Your task to perform on an android device: turn off notifications settings in the gmail app Image 0: 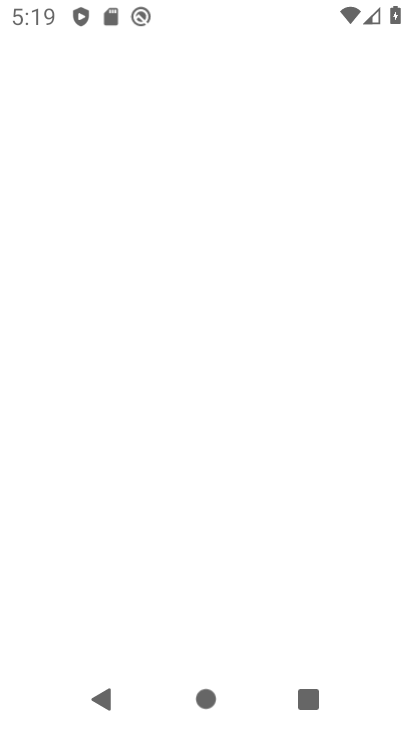
Step 0: press home button
Your task to perform on an android device: turn off notifications settings in the gmail app Image 1: 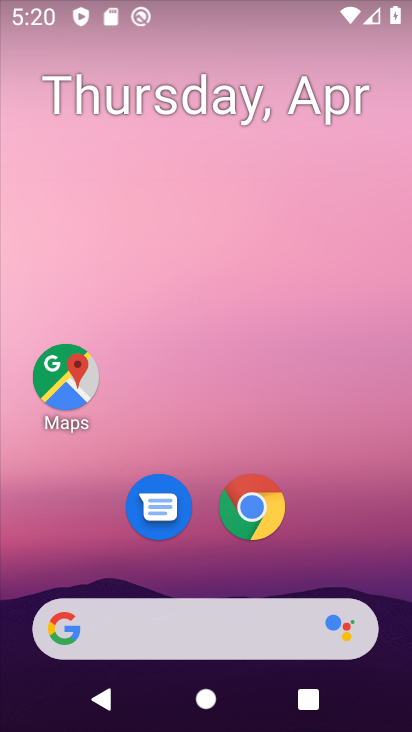
Step 1: drag from (354, 446) to (358, 154)
Your task to perform on an android device: turn off notifications settings in the gmail app Image 2: 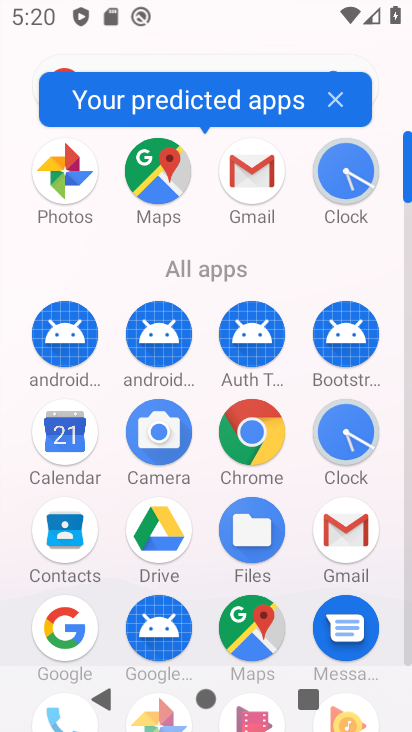
Step 2: click (357, 522)
Your task to perform on an android device: turn off notifications settings in the gmail app Image 3: 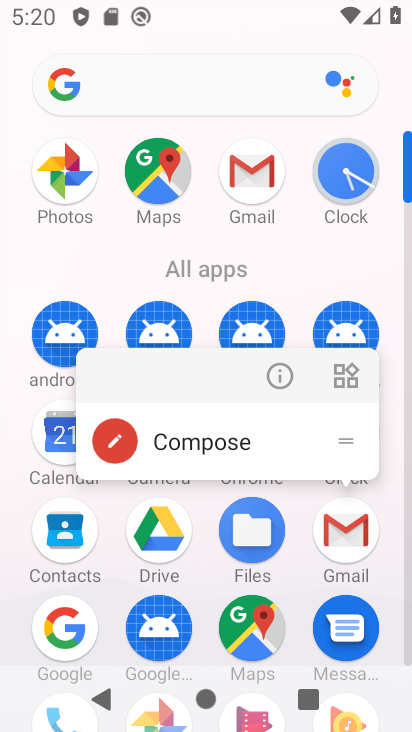
Step 3: click (280, 375)
Your task to perform on an android device: turn off notifications settings in the gmail app Image 4: 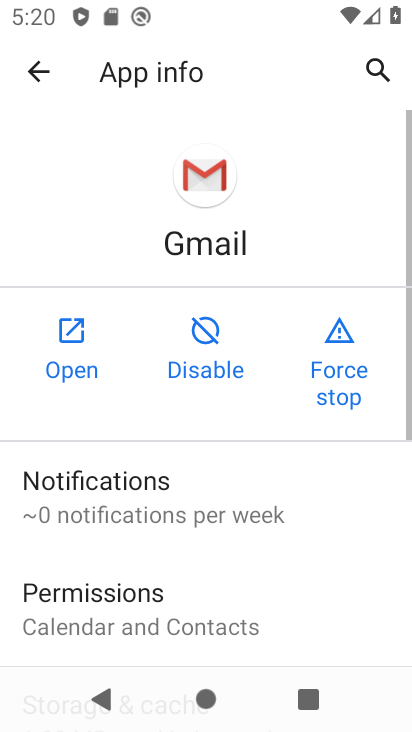
Step 4: click (165, 495)
Your task to perform on an android device: turn off notifications settings in the gmail app Image 5: 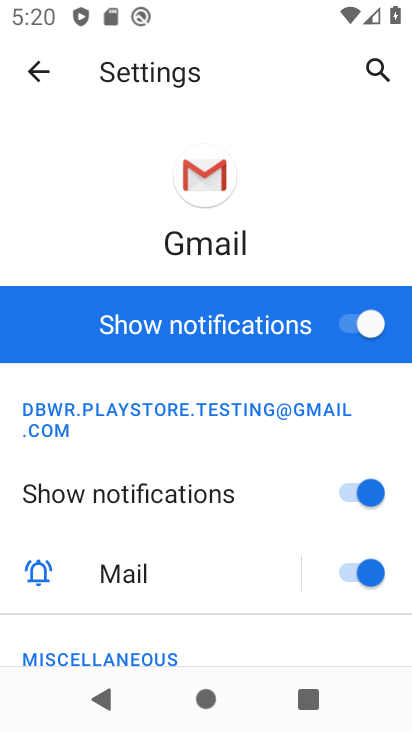
Step 5: click (349, 321)
Your task to perform on an android device: turn off notifications settings in the gmail app Image 6: 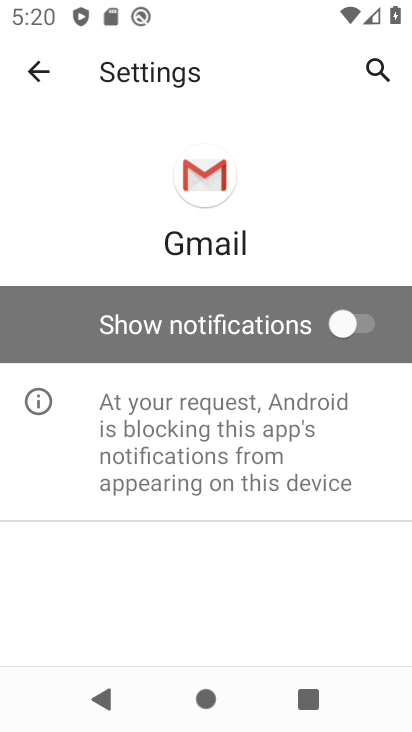
Step 6: task complete